Your task to perform on an android device: turn vacation reply on in the gmail app Image 0: 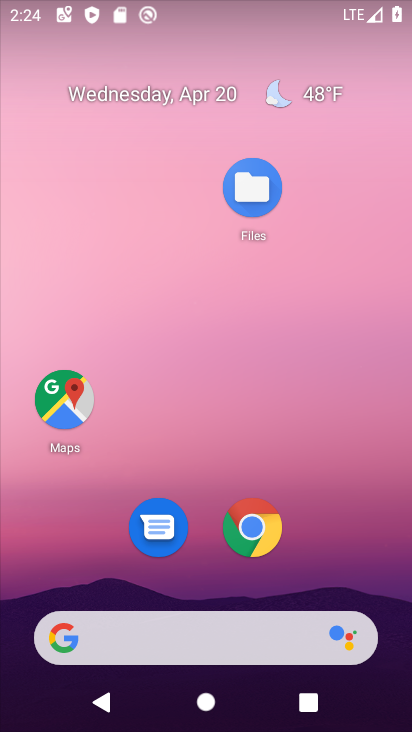
Step 0: drag from (202, 586) to (209, 120)
Your task to perform on an android device: turn vacation reply on in the gmail app Image 1: 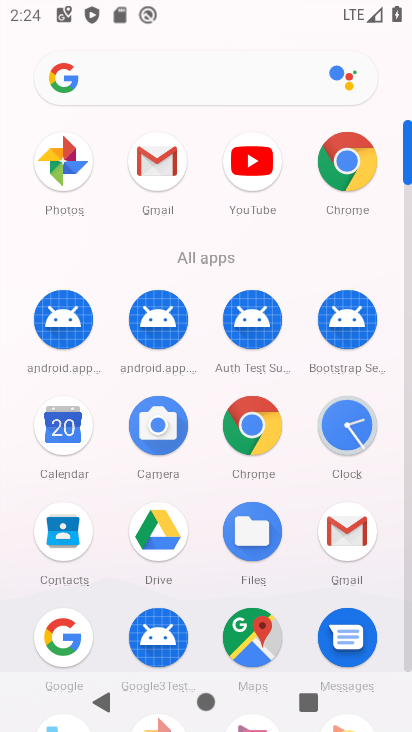
Step 1: click (172, 185)
Your task to perform on an android device: turn vacation reply on in the gmail app Image 2: 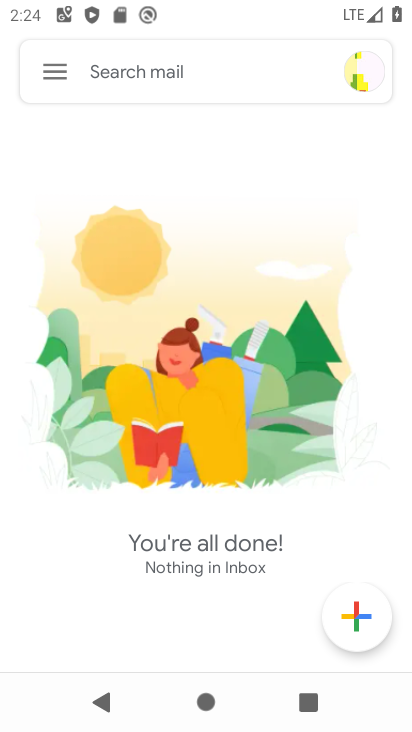
Step 2: click (59, 75)
Your task to perform on an android device: turn vacation reply on in the gmail app Image 3: 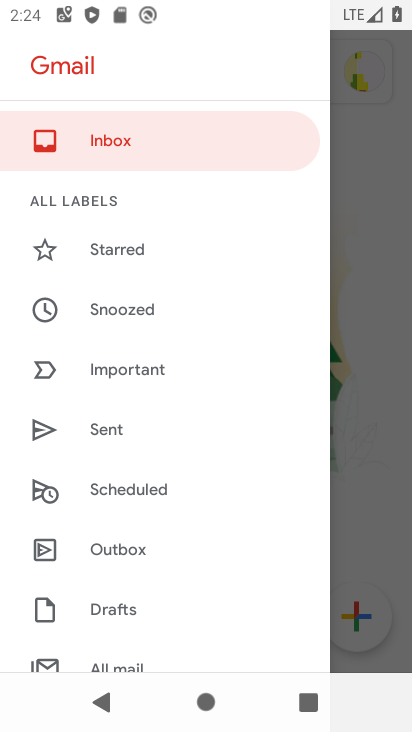
Step 3: drag from (113, 643) to (197, 189)
Your task to perform on an android device: turn vacation reply on in the gmail app Image 4: 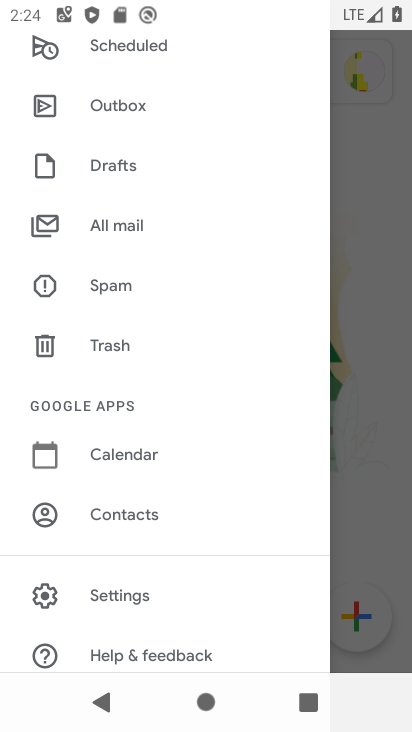
Step 4: click (122, 610)
Your task to perform on an android device: turn vacation reply on in the gmail app Image 5: 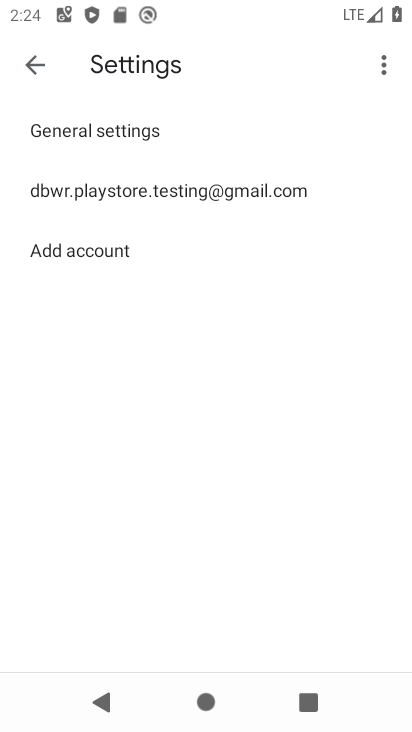
Step 5: click (233, 206)
Your task to perform on an android device: turn vacation reply on in the gmail app Image 6: 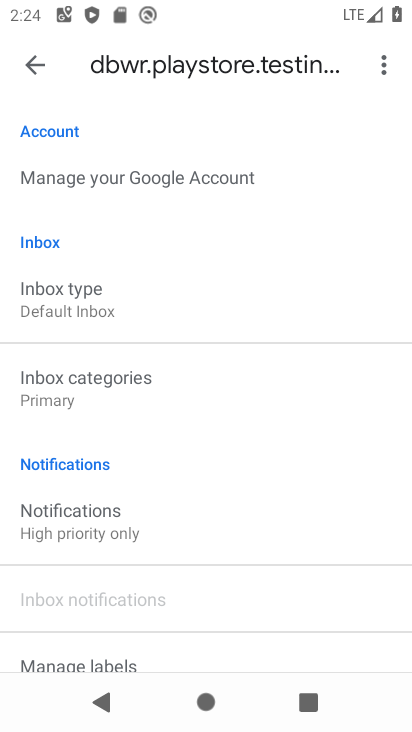
Step 6: drag from (162, 554) to (220, 184)
Your task to perform on an android device: turn vacation reply on in the gmail app Image 7: 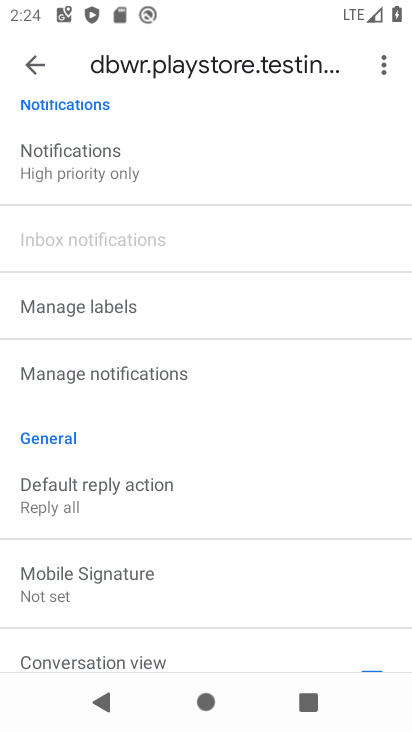
Step 7: drag from (131, 573) to (203, 68)
Your task to perform on an android device: turn vacation reply on in the gmail app Image 8: 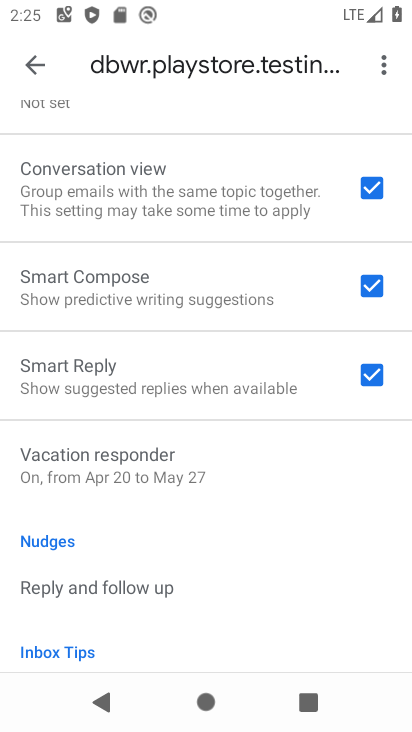
Step 8: click (229, 439)
Your task to perform on an android device: turn vacation reply on in the gmail app Image 9: 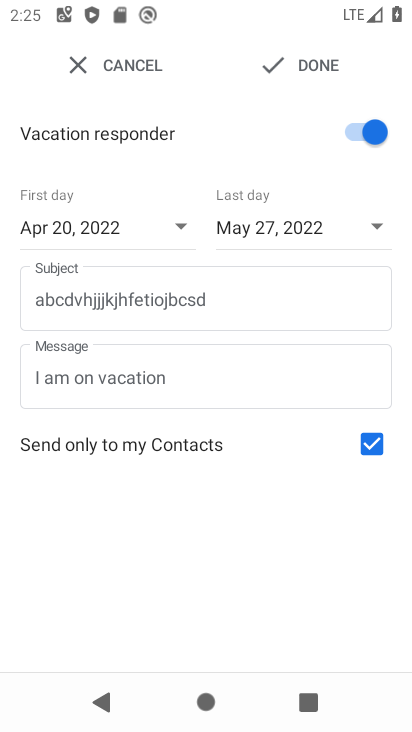
Step 9: click (309, 53)
Your task to perform on an android device: turn vacation reply on in the gmail app Image 10: 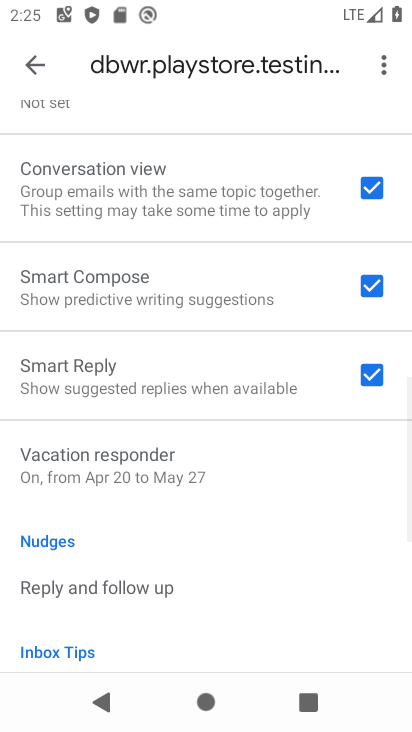
Step 10: task complete